Your task to perform on an android device: manage bookmarks in the chrome app Image 0: 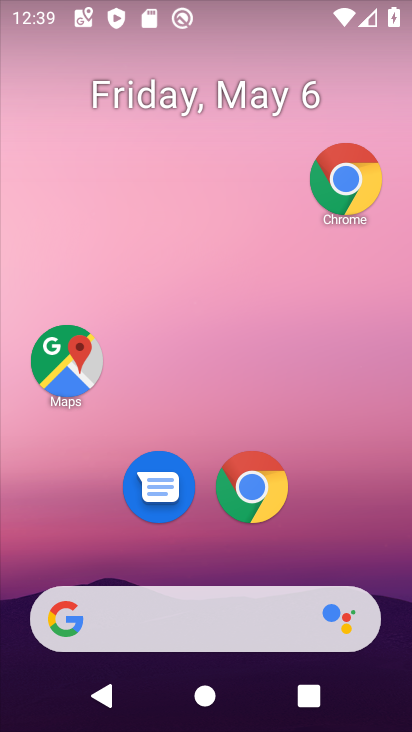
Step 0: click (274, 502)
Your task to perform on an android device: manage bookmarks in the chrome app Image 1: 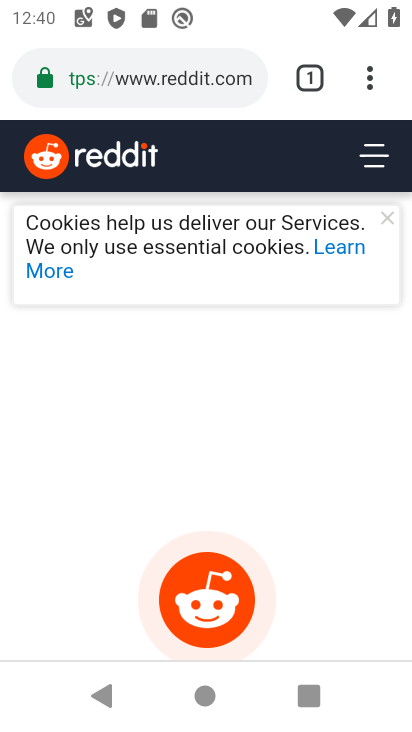
Step 1: click (371, 95)
Your task to perform on an android device: manage bookmarks in the chrome app Image 2: 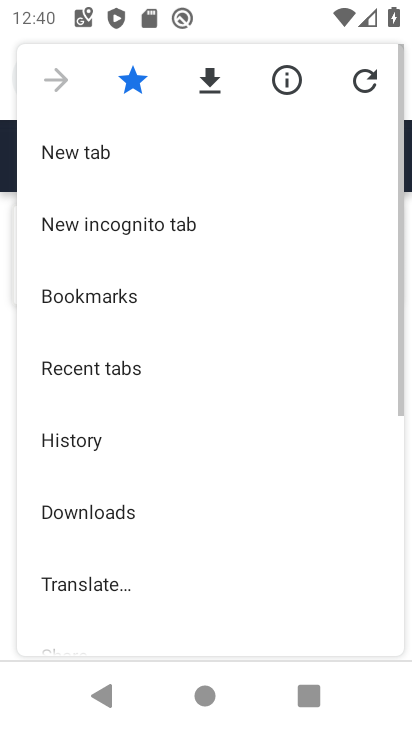
Step 2: click (187, 297)
Your task to perform on an android device: manage bookmarks in the chrome app Image 3: 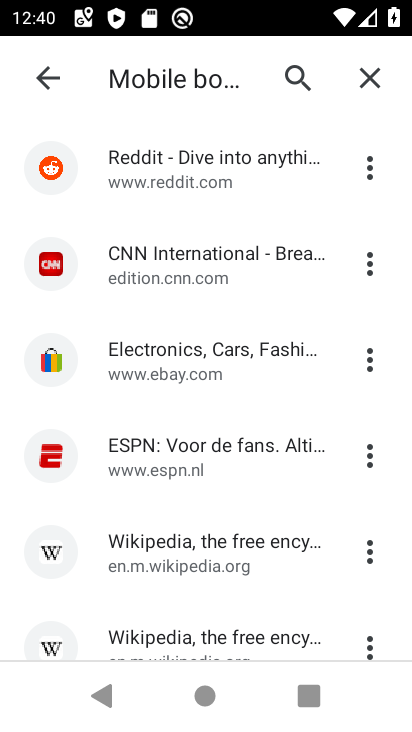
Step 3: click (380, 365)
Your task to perform on an android device: manage bookmarks in the chrome app Image 4: 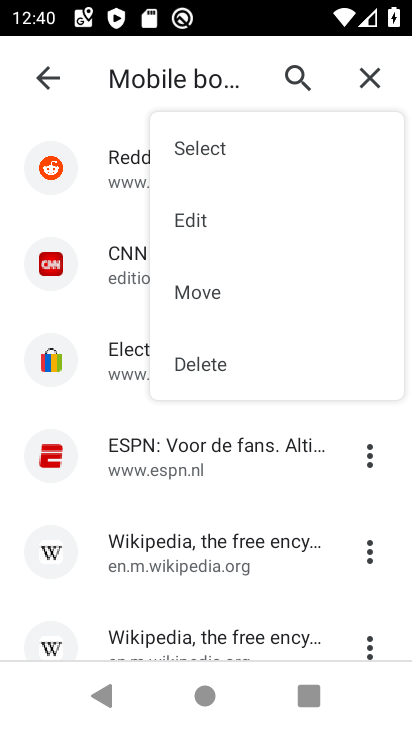
Step 4: click (247, 352)
Your task to perform on an android device: manage bookmarks in the chrome app Image 5: 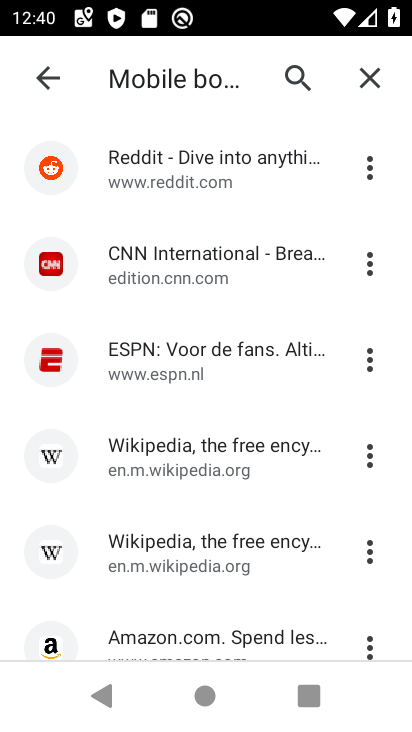
Step 5: task complete